Your task to perform on an android device: turn notification dots on Image 0: 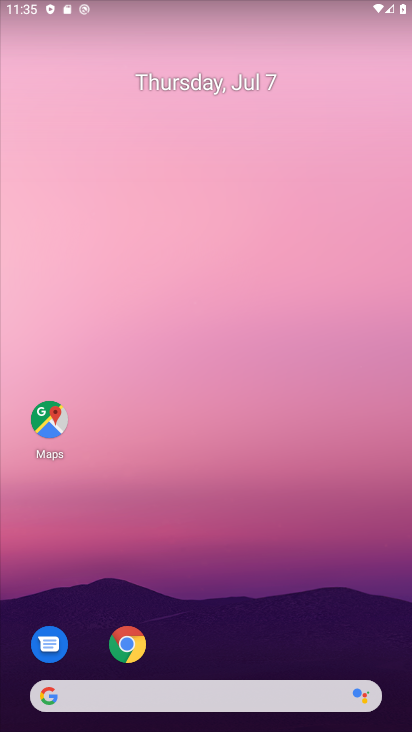
Step 0: drag from (391, 690) to (373, 120)
Your task to perform on an android device: turn notification dots on Image 1: 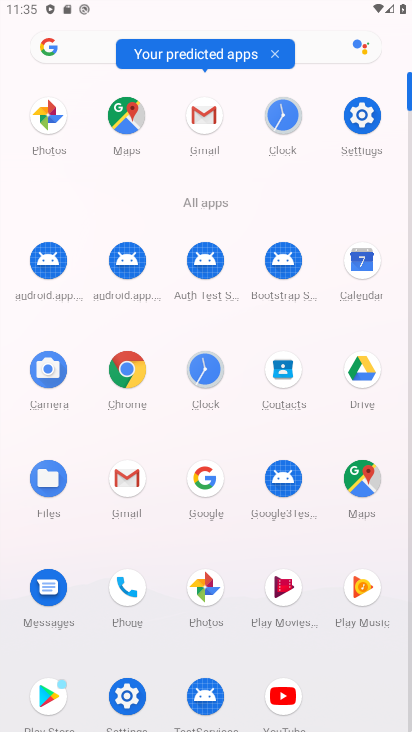
Step 1: click (357, 109)
Your task to perform on an android device: turn notification dots on Image 2: 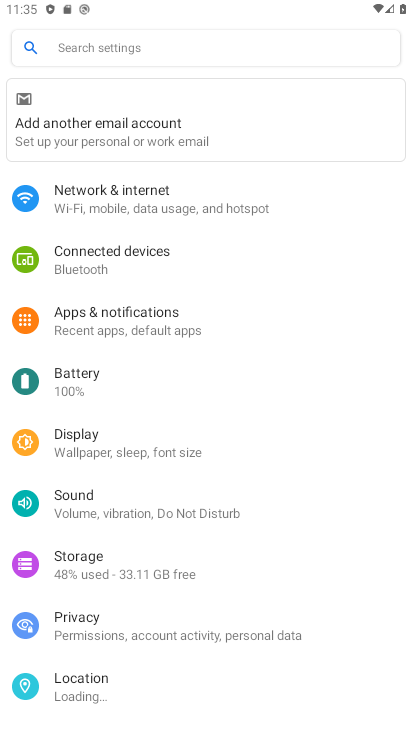
Step 2: click (206, 301)
Your task to perform on an android device: turn notification dots on Image 3: 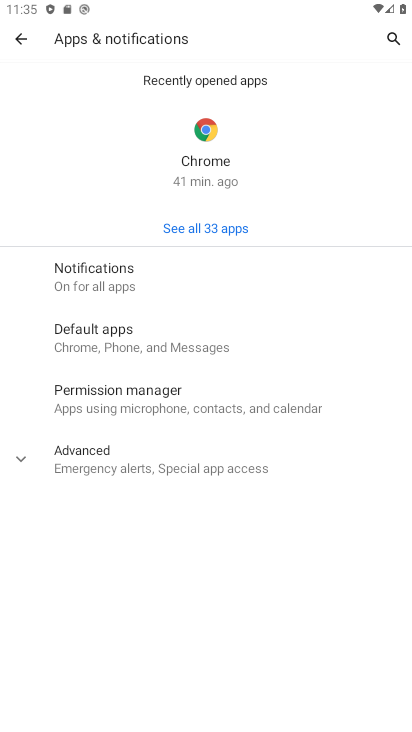
Step 3: click (238, 272)
Your task to perform on an android device: turn notification dots on Image 4: 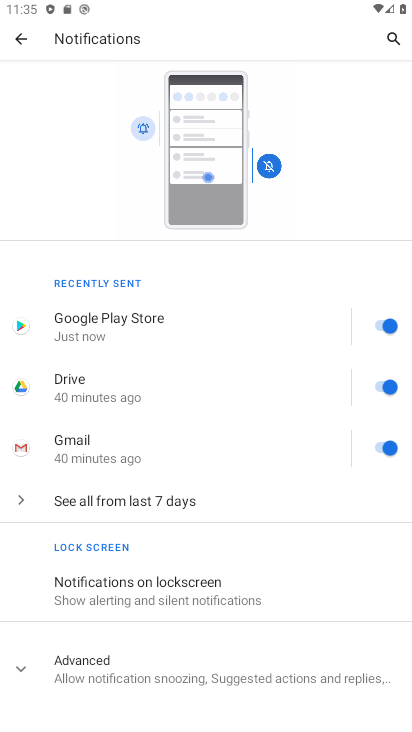
Step 4: drag from (262, 482) to (260, 137)
Your task to perform on an android device: turn notification dots on Image 5: 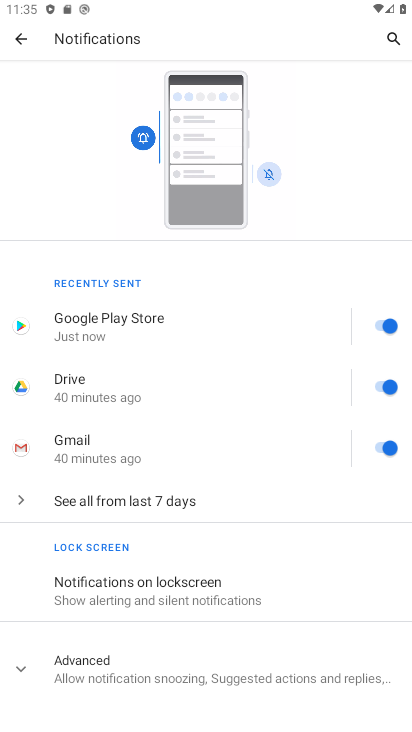
Step 5: click (126, 660)
Your task to perform on an android device: turn notification dots on Image 6: 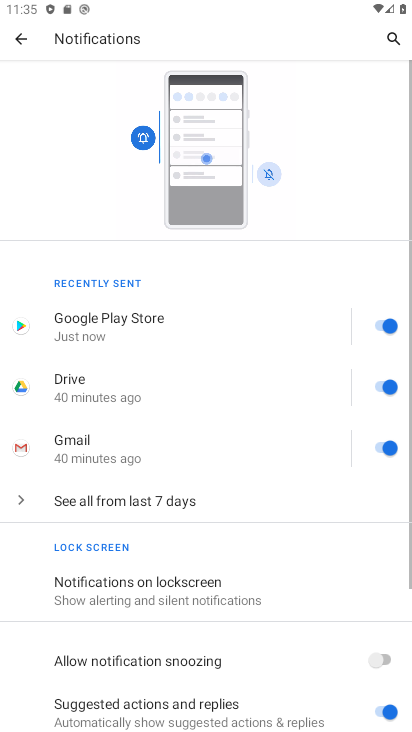
Step 6: task complete